Your task to perform on an android device: Show me popular games on the Play Store Image 0: 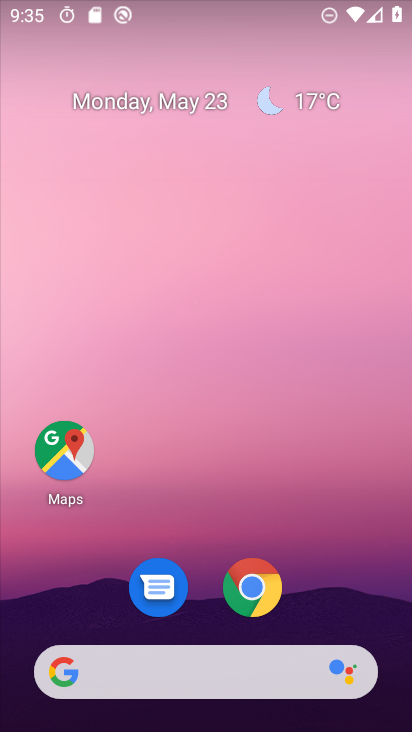
Step 0: drag from (165, 404) to (165, 127)
Your task to perform on an android device: Show me popular games on the Play Store Image 1: 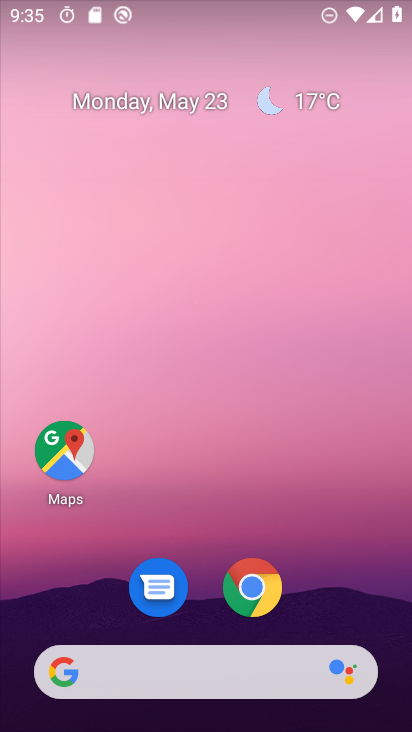
Step 1: drag from (172, 486) to (228, 39)
Your task to perform on an android device: Show me popular games on the Play Store Image 2: 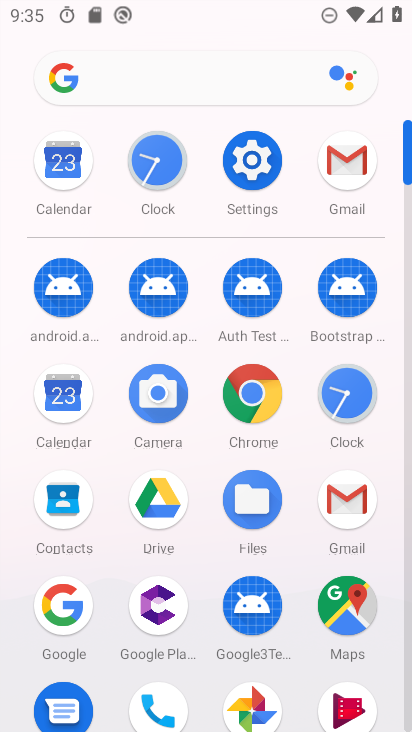
Step 2: drag from (154, 651) to (256, 183)
Your task to perform on an android device: Show me popular games on the Play Store Image 3: 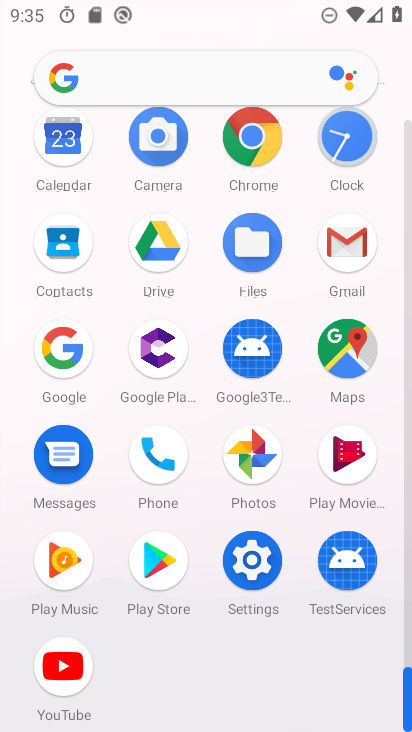
Step 3: click (158, 566)
Your task to perform on an android device: Show me popular games on the Play Store Image 4: 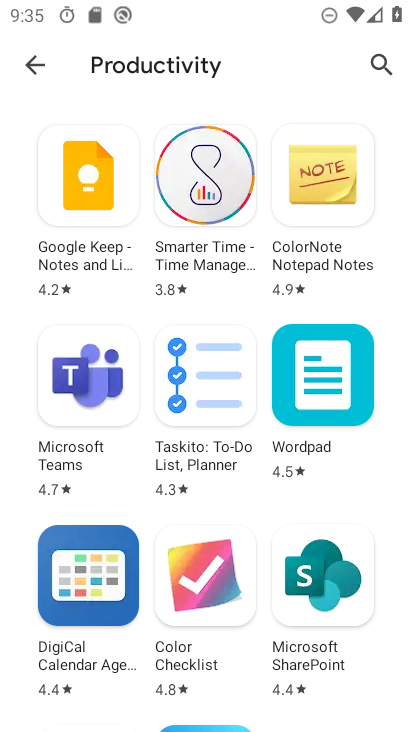
Step 4: click (31, 58)
Your task to perform on an android device: Show me popular games on the Play Store Image 5: 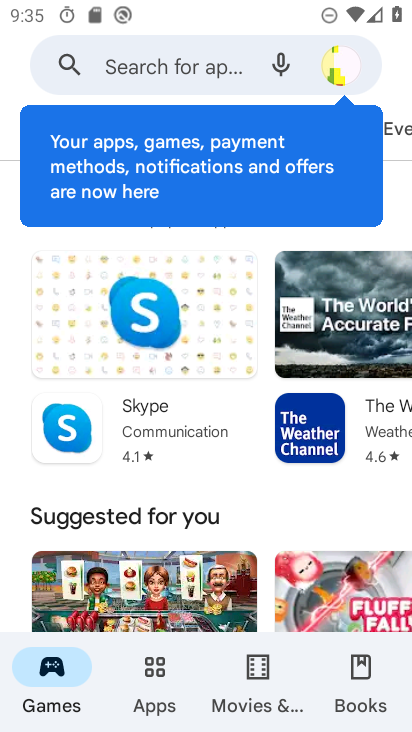
Step 5: drag from (261, 590) to (388, 99)
Your task to perform on an android device: Show me popular games on the Play Store Image 6: 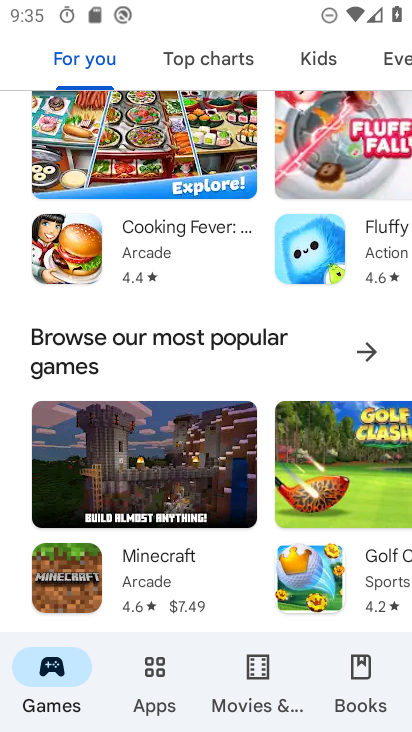
Step 6: click (353, 349)
Your task to perform on an android device: Show me popular games on the Play Store Image 7: 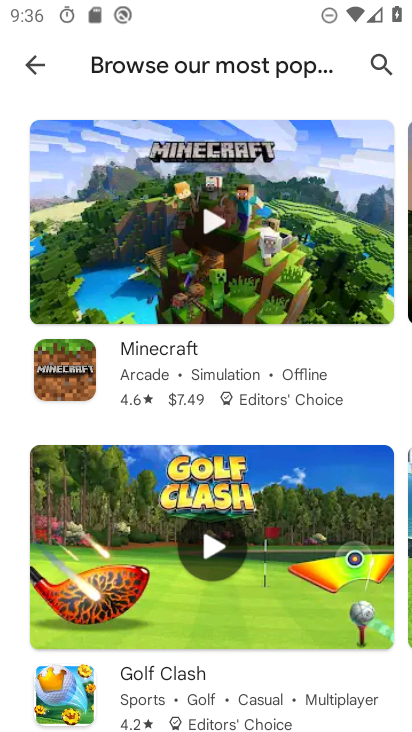
Step 7: task complete